Your task to perform on an android device: manage bookmarks in the chrome app Image 0: 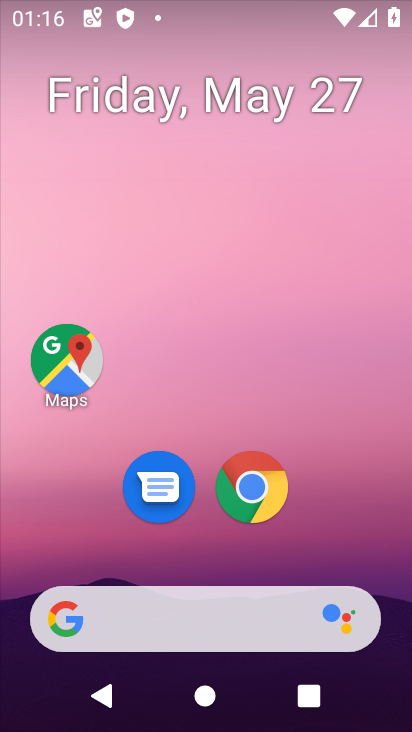
Step 0: click (271, 513)
Your task to perform on an android device: manage bookmarks in the chrome app Image 1: 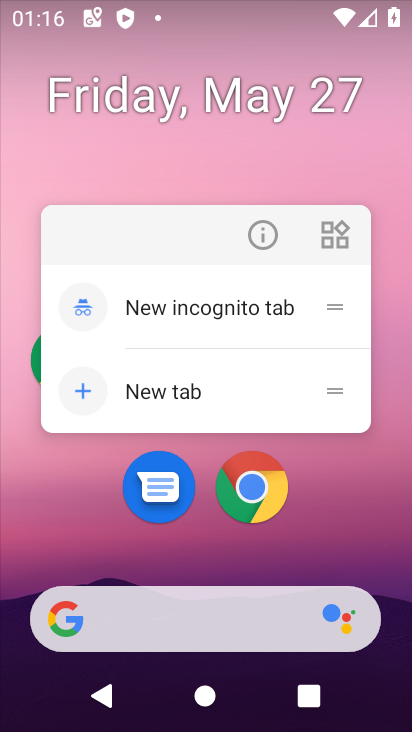
Step 1: click (258, 504)
Your task to perform on an android device: manage bookmarks in the chrome app Image 2: 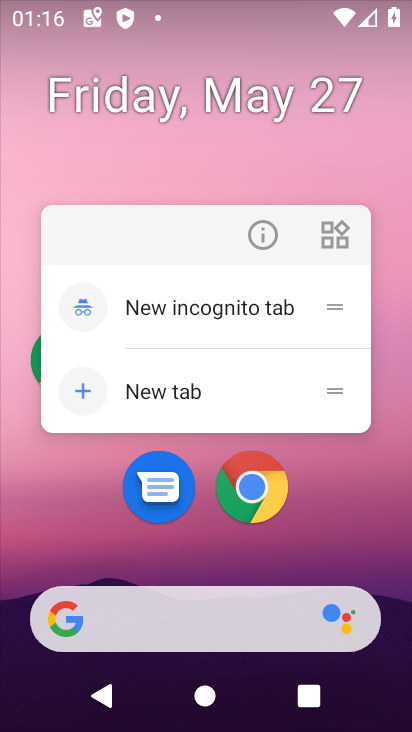
Step 2: click (250, 478)
Your task to perform on an android device: manage bookmarks in the chrome app Image 3: 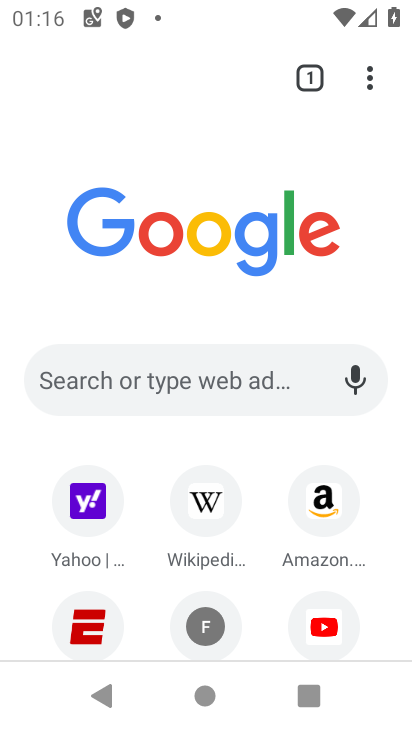
Step 3: click (372, 69)
Your task to perform on an android device: manage bookmarks in the chrome app Image 4: 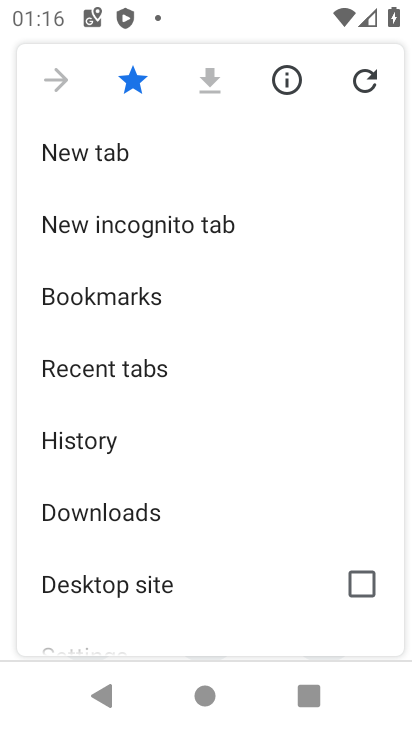
Step 4: click (95, 298)
Your task to perform on an android device: manage bookmarks in the chrome app Image 5: 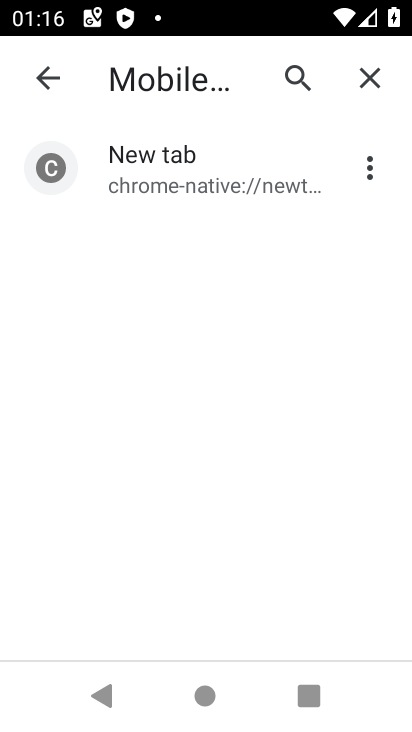
Step 5: click (373, 173)
Your task to perform on an android device: manage bookmarks in the chrome app Image 6: 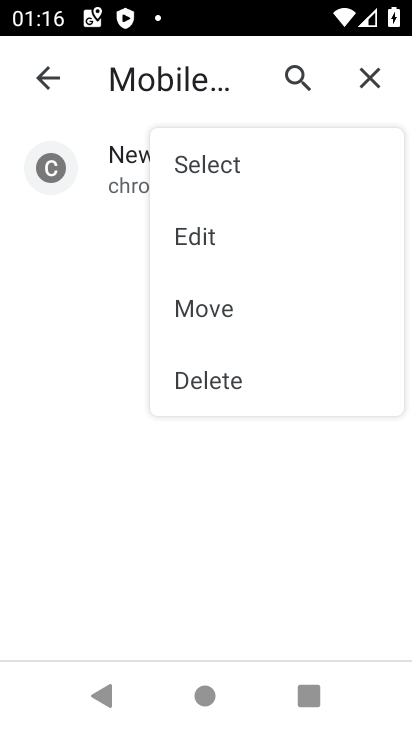
Step 6: click (239, 377)
Your task to perform on an android device: manage bookmarks in the chrome app Image 7: 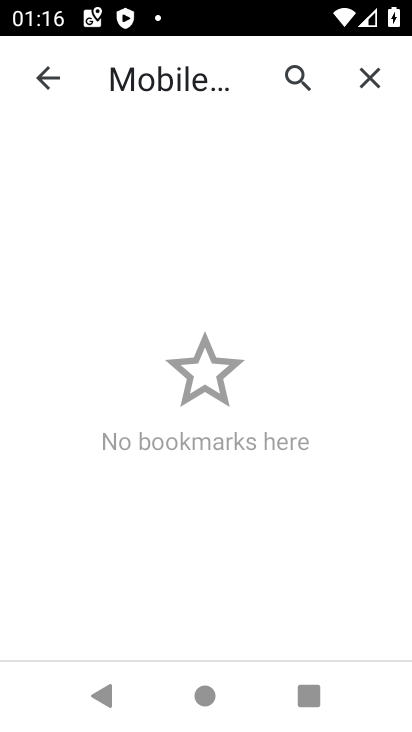
Step 7: click (25, 79)
Your task to perform on an android device: manage bookmarks in the chrome app Image 8: 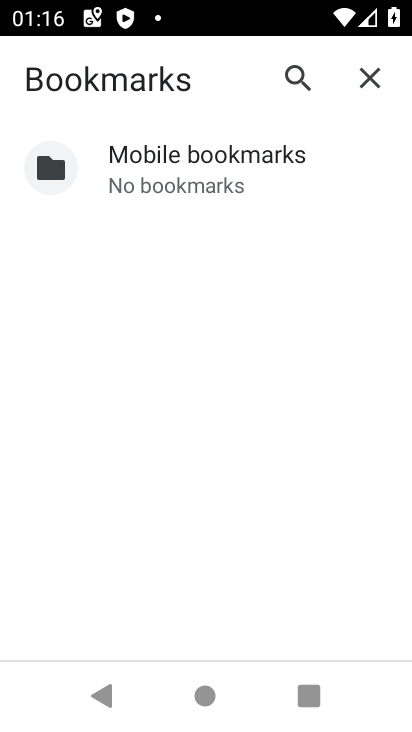
Step 8: task complete